Your task to perform on an android device: find which apps use the phone's location Image 0: 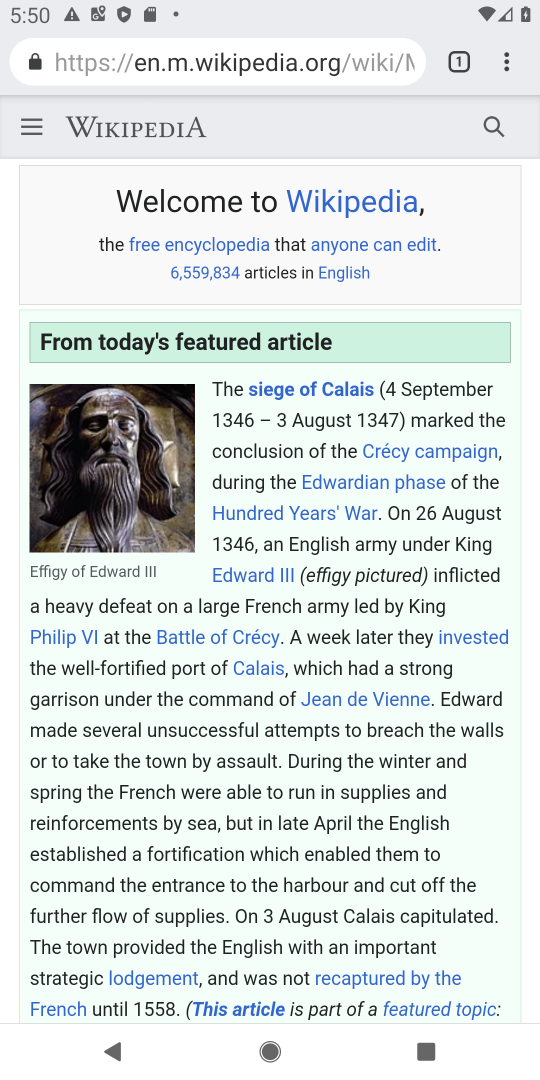
Step 0: press home button
Your task to perform on an android device: find which apps use the phone's location Image 1: 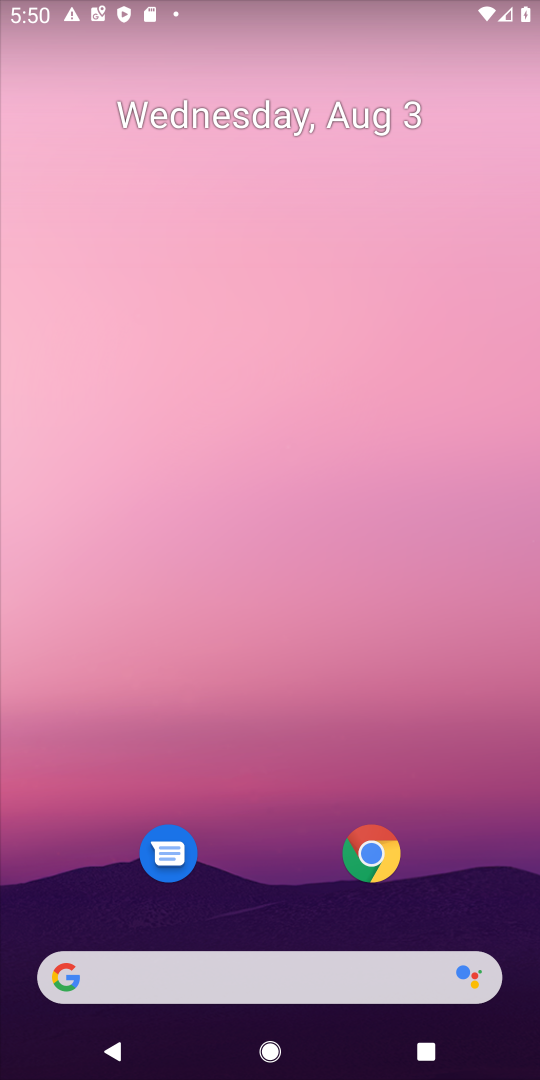
Step 1: drag from (485, 844) to (462, 321)
Your task to perform on an android device: find which apps use the phone's location Image 2: 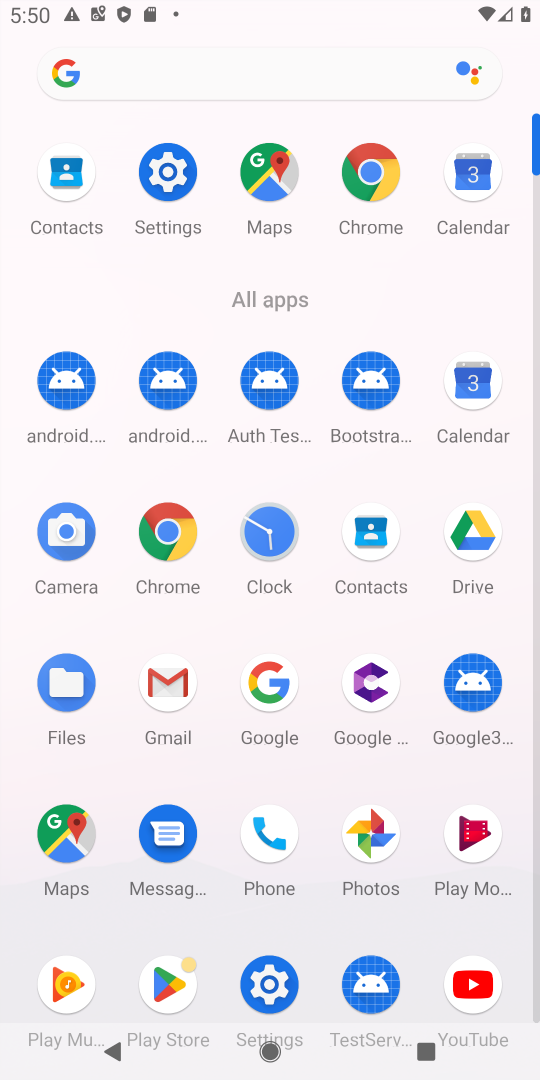
Step 2: click (268, 980)
Your task to perform on an android device: find which apps use the phone's location Image 3: 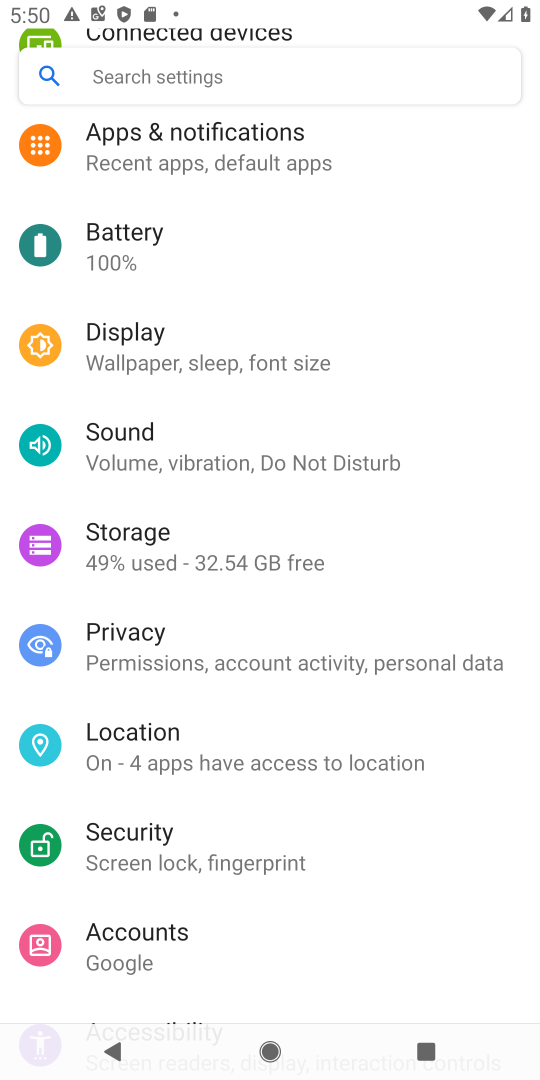
Step 3: click (251, 743)
Your task to perform on an android device: find which apps use the phone's location Image 4: 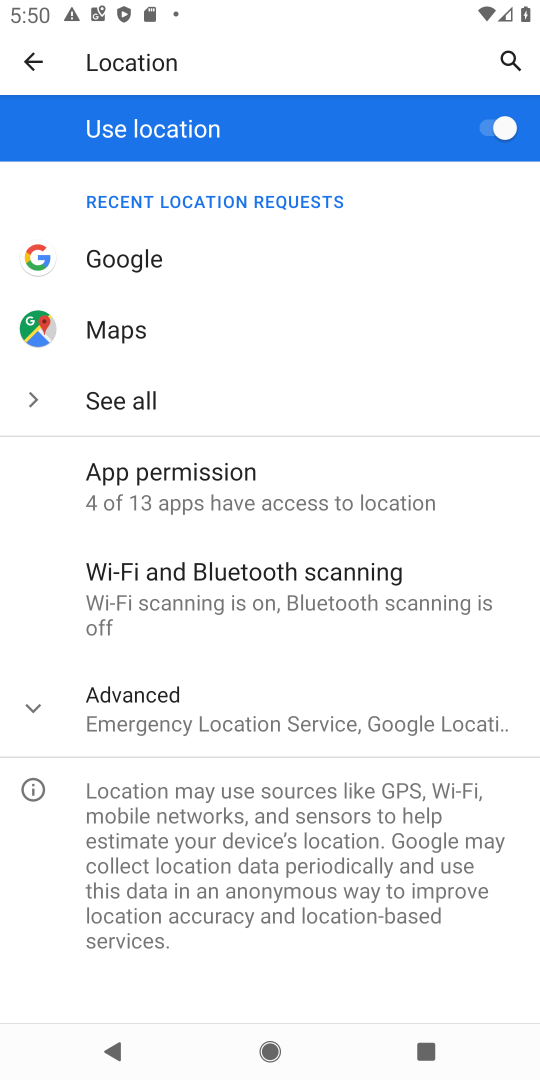
Step 4: click (199, 483)
Your task to perform on an android device: find which apps use the phone's location Image 5: 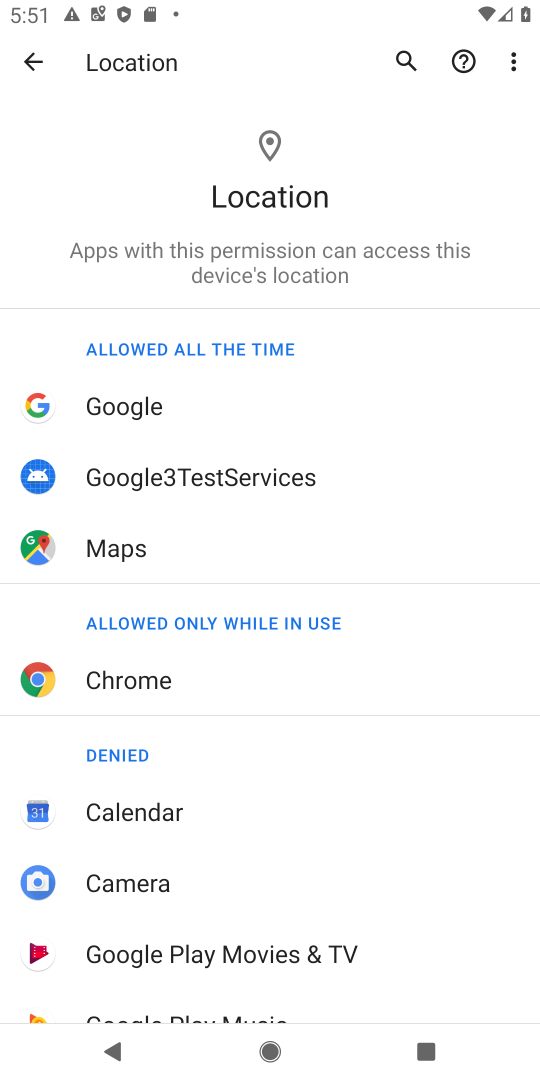
Step 5: task complete